Your task to perform on an android device: Show the shopping cart on ebay. Search for "dell xps" on ebay, select the first entry, add it to the cart, then select checkout. Image 0: 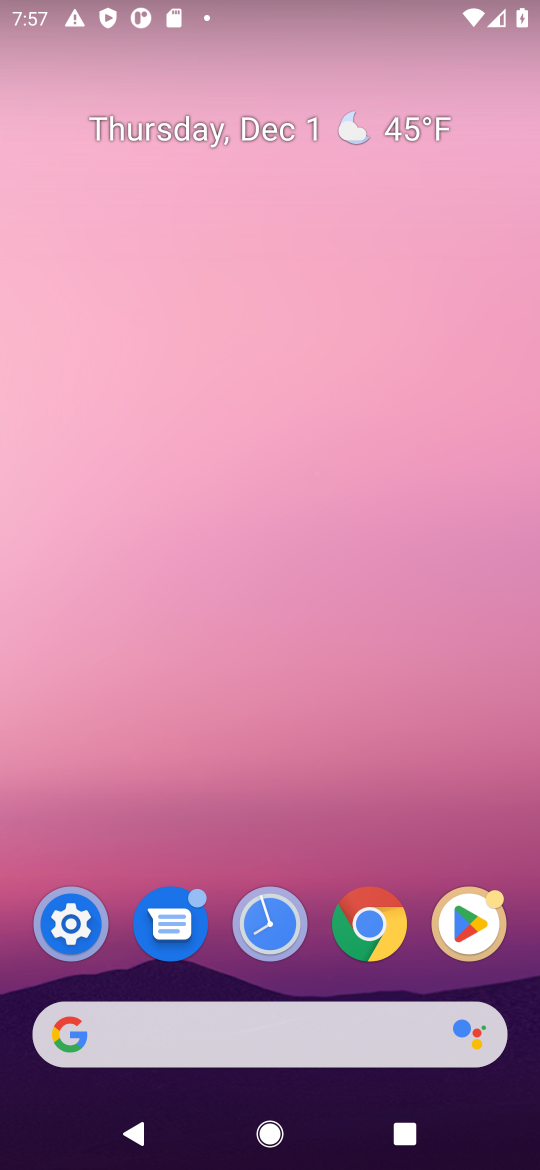
Step 0: click (278, 1040)
Your task to perform on an android device: Show the shopping cart on ebay. Search for "dell xps" on ebay, select the first entry, add it to the cart, then select checkout. Image 1: 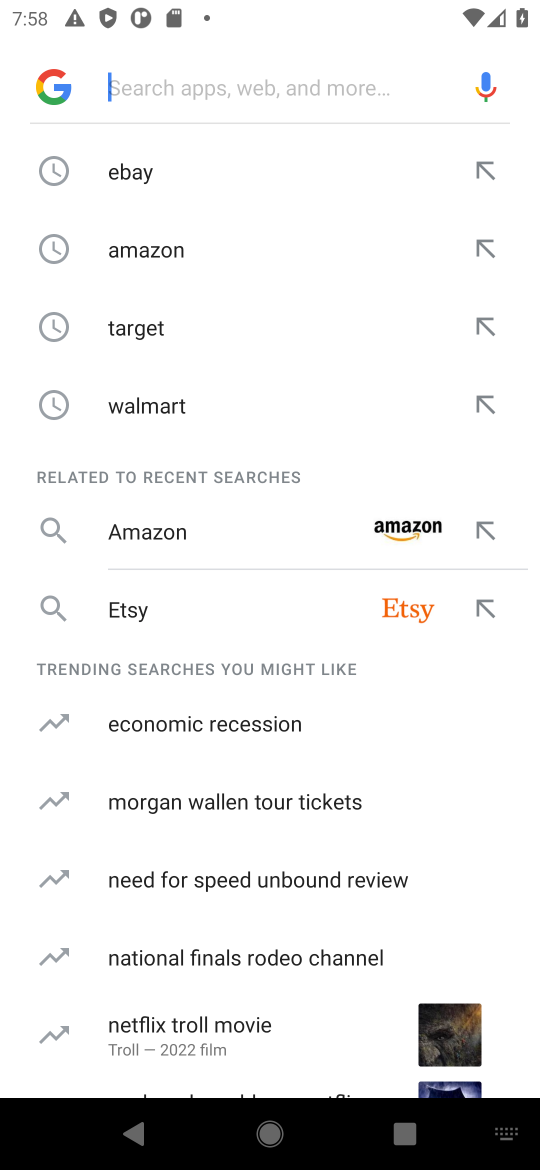
Step 1: click (190, 152)
Your task to perform on an android device: Show the shopping cart on ebay. Search for "dell xps" on ebay, select the first entry, add it to the cart, then select checkout. Image 2: 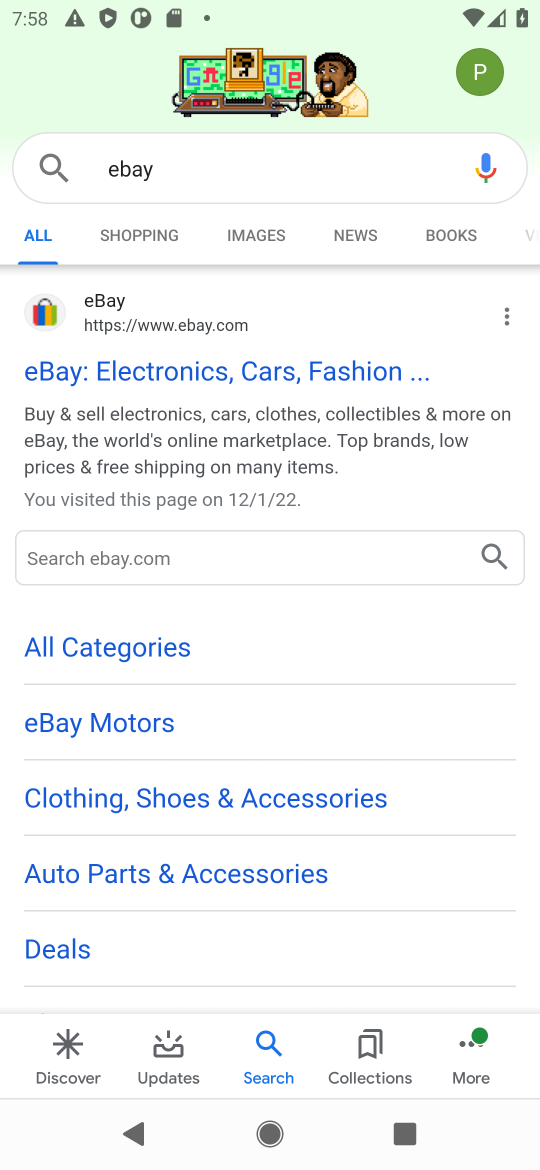
Step 2: click (152, 356)
Your task to perform on an android device: Show the shopping cart on ebay. Search for "dell xps" on ebay, select the first entry, add it to the cart, then select checkout. Image 3: 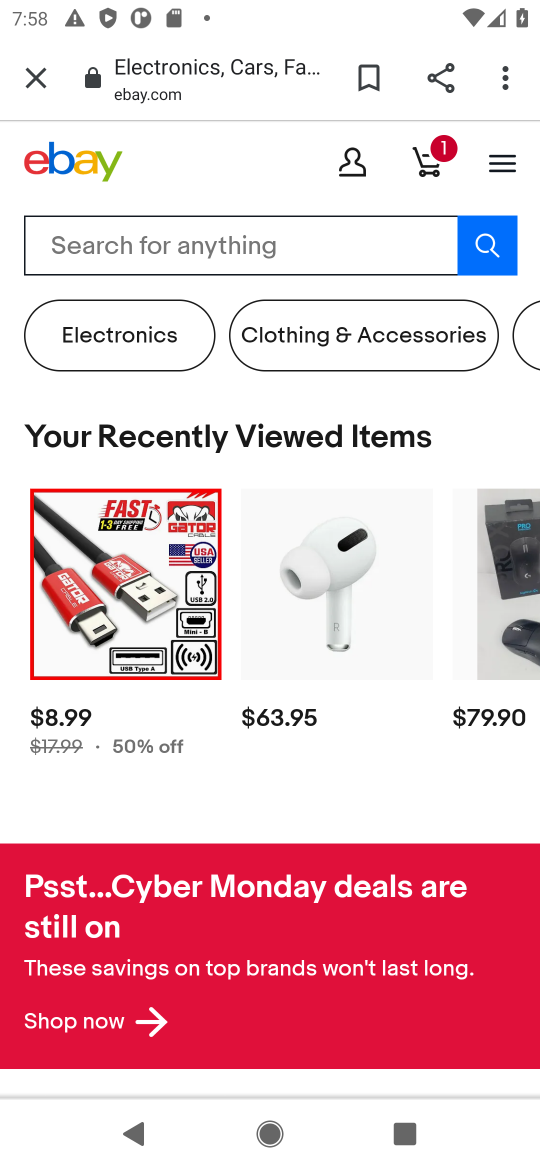
Step 3: click (211, 255)
Your task to perform on an android device: Show the shopping cart on ebay. Search for "dell xps" on ebay, select the first entry, add it to the cart, then select checkout. Image 4: 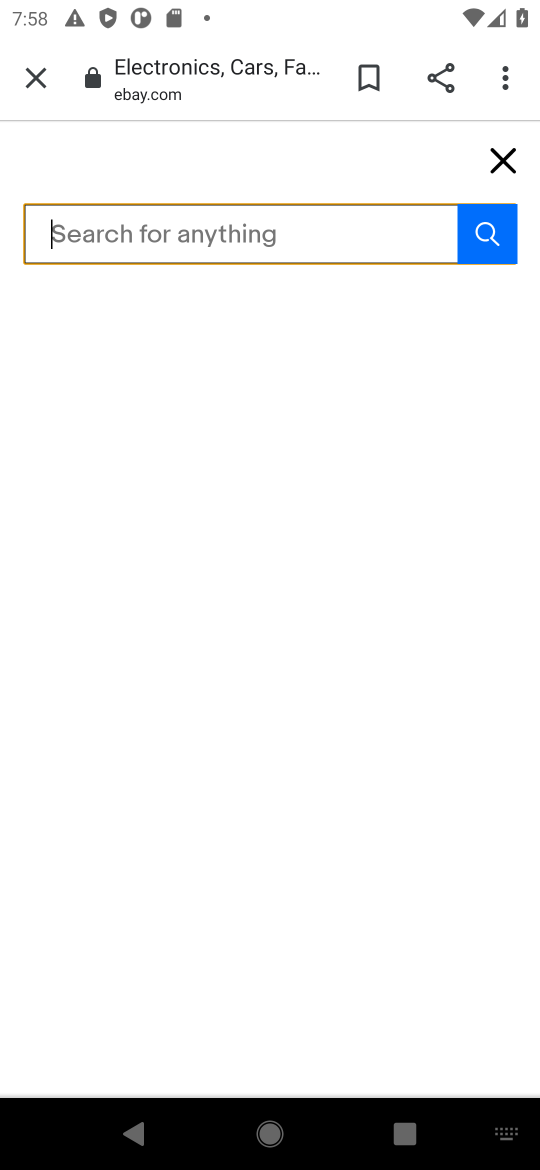
Step 4: type "dell xps"
Your task to perform on an android device: Show the shopping cart on ebay. Search for "dell xps" on ebay, select the first entry, add it to the cart, then select checkout. Image 5: 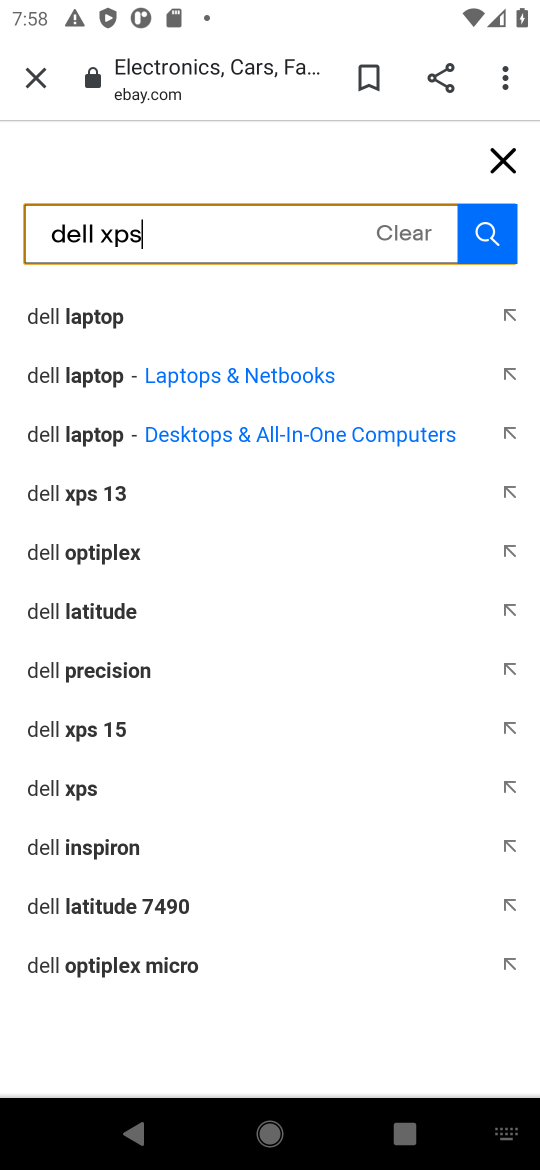
Step 5: click (499, 237)
Your task to perform on an android device: Show the shopping cart on ebay. Search for "dell xps" on ebay, select the first entry, add it to the cart, then select checkout. Image 6: 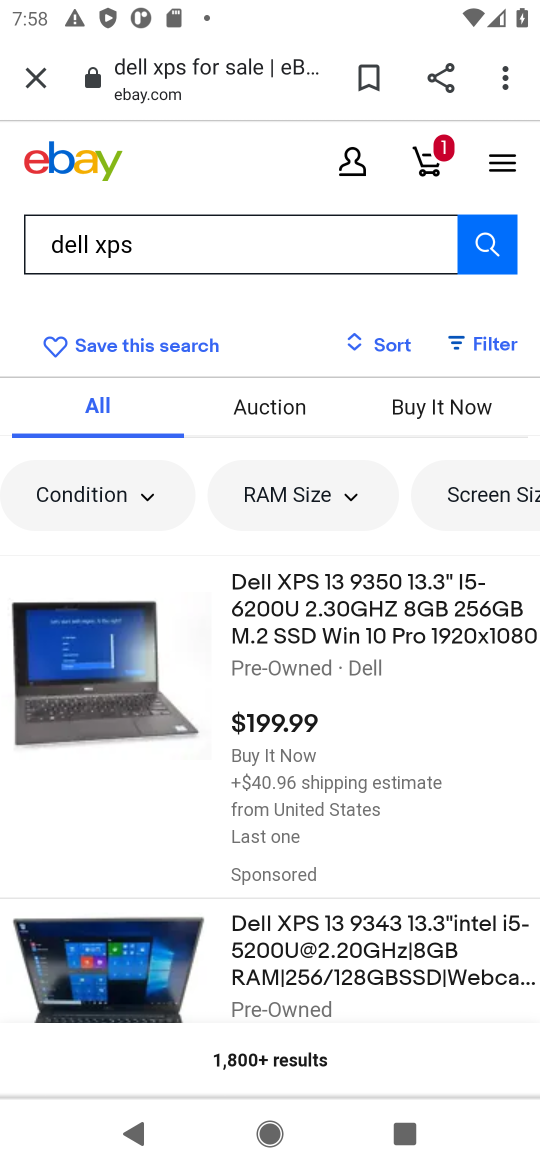
Step 6: click (415, 611)
Your task to perform on an android device: Show the shopping cart on ebay. Search for "dell xps" on ebay, select the first entry, add it to the cart, then select checkout. Image 7: 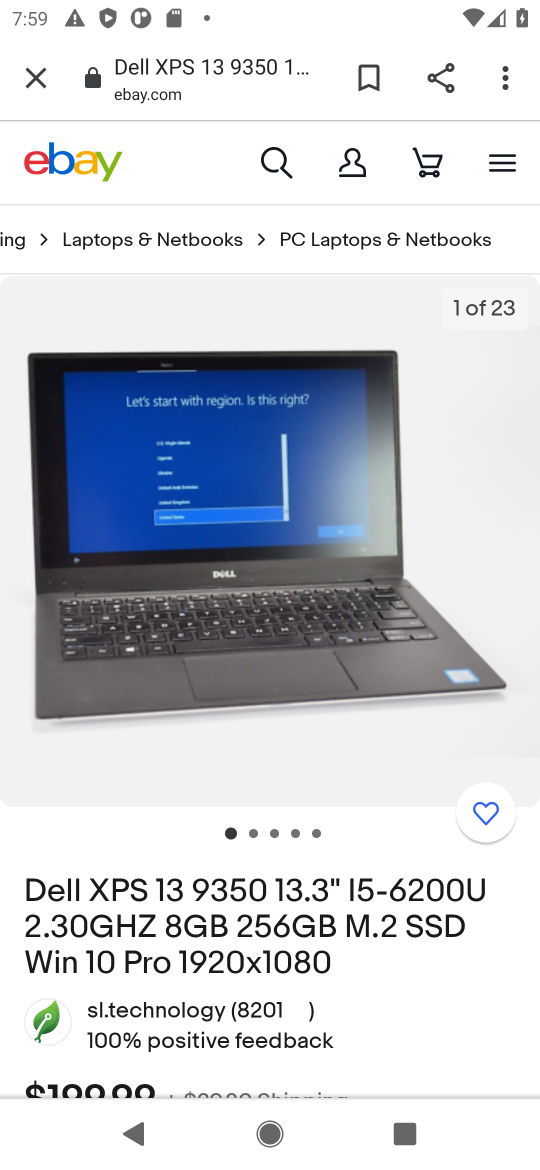
Step 7: drag from (444, 1030) to (335, 514)
Your task to perform on an android device: Show the shopping cart on ebay. Search for "dell xps" on ebay, select the first entry, add it to the cart, then select checkout. Image 8: 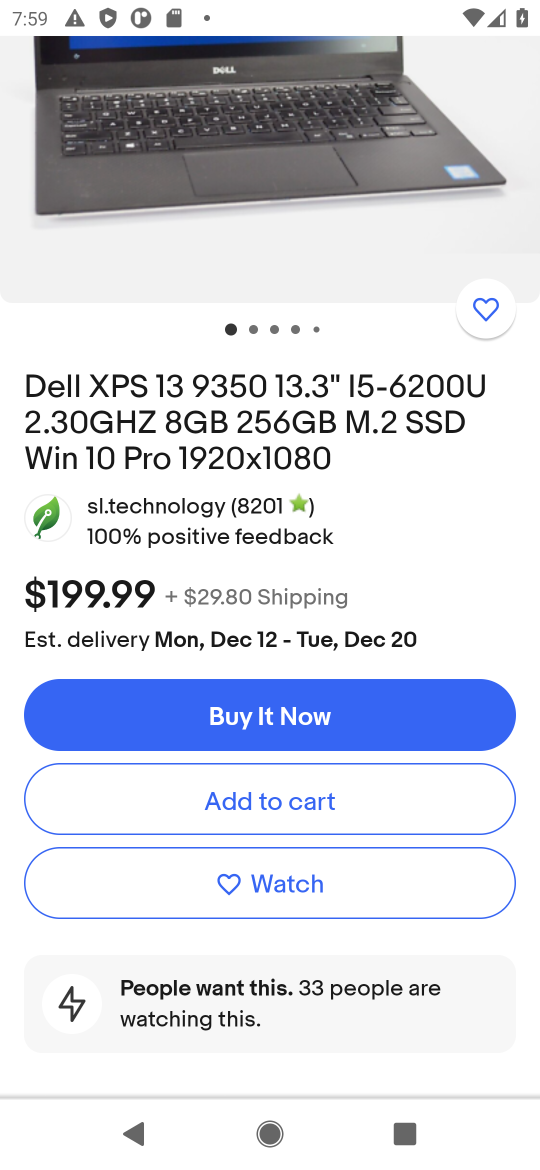
Step 8: click (367, 784)
Your task to perform on an android device: Show the shopping cart on ebay. Search for "dell xps" on ebay, select the first entry, add it to the cart, then select checkout. Image 9: 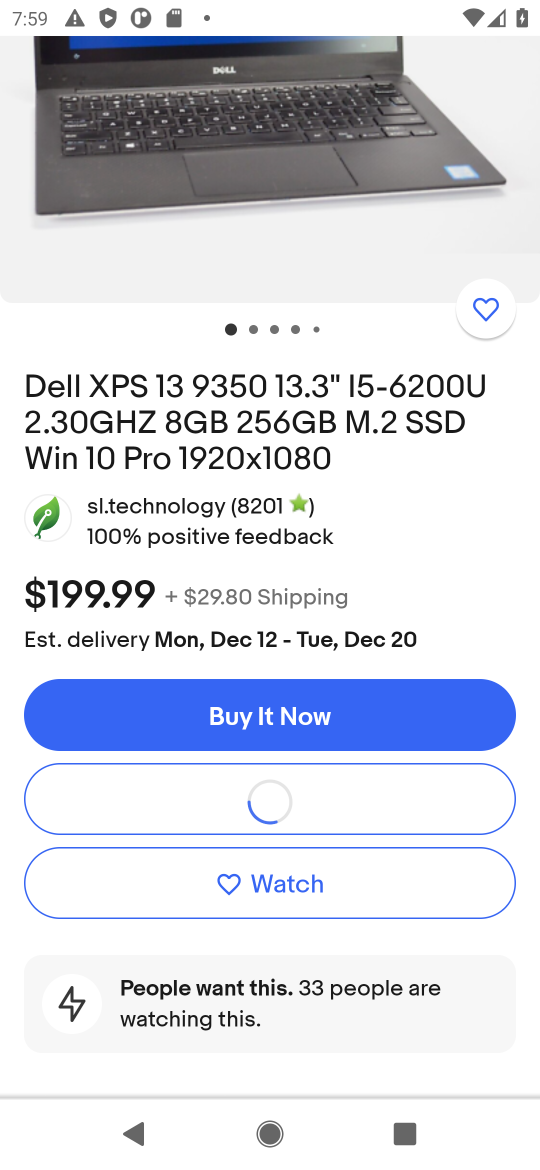
Step 9: task complete